Your task to perform on an android device: Open Yahoo.com Image 0: 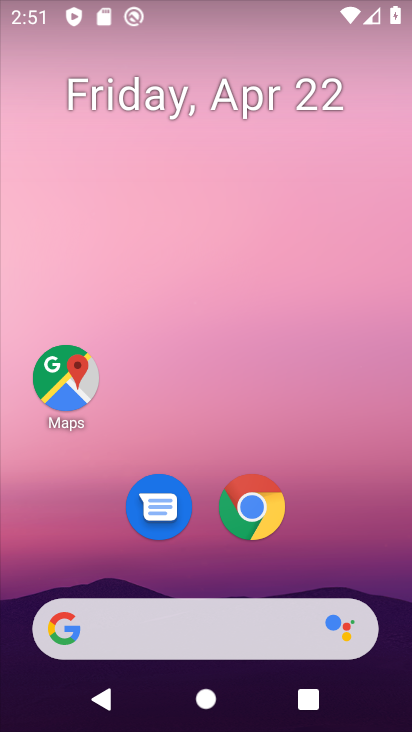
Step 0: drag from (204, 579) to (380, 10)
Your task to perform on an android device: Open Yahoo.com Image 1: 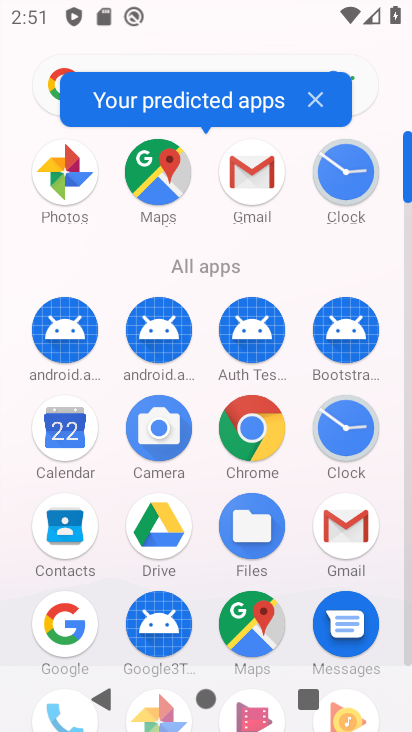
Step 1: click (258, 447)
Your task to perform on an android device: Open Yahoo.com Image 2: 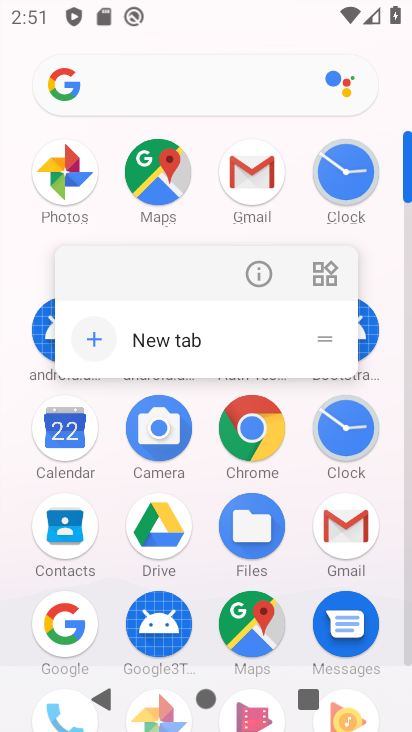
Step 2: click (264, 434)
Your task to perform on an android device: Open Yahoo.com Image 3: 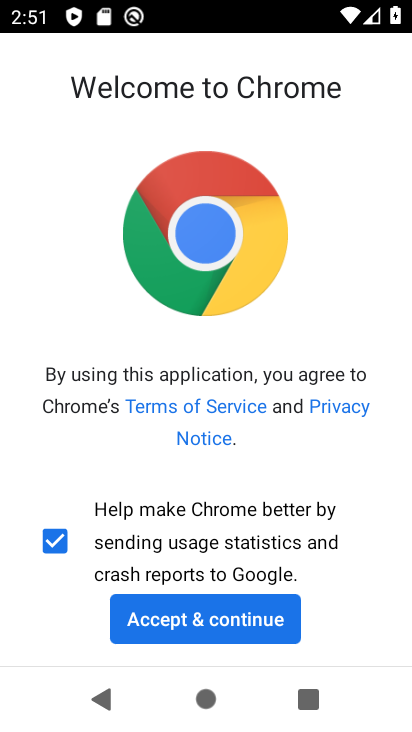
Step 3: click (175, 616)
Your task to perform on an android device: Open Yahoo.com Image 4: 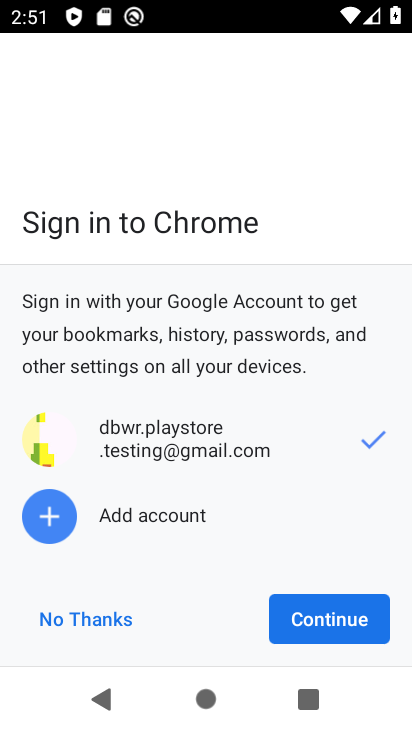
Step 4: click (316, 620)
Your task to perform on an android device: Open Yahoo.com Image 5: 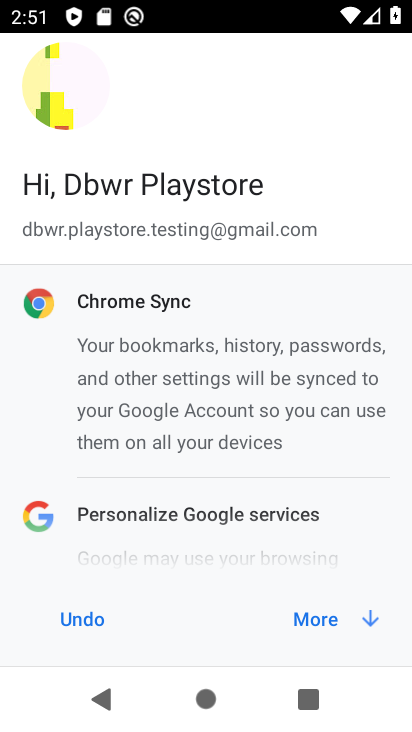
Step 5: click (340, 611)
Your task to perform on an android device: Open Yahoo.com Image 6: 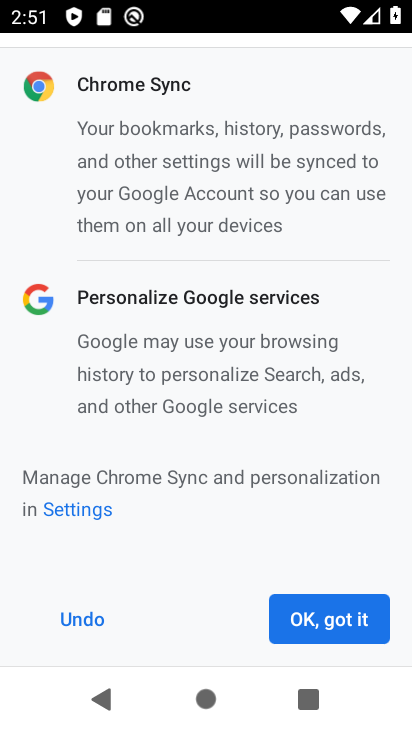
Step 6: click (332, 615)
Your task to perform on an android device: Open Yahoo.com Image 7: 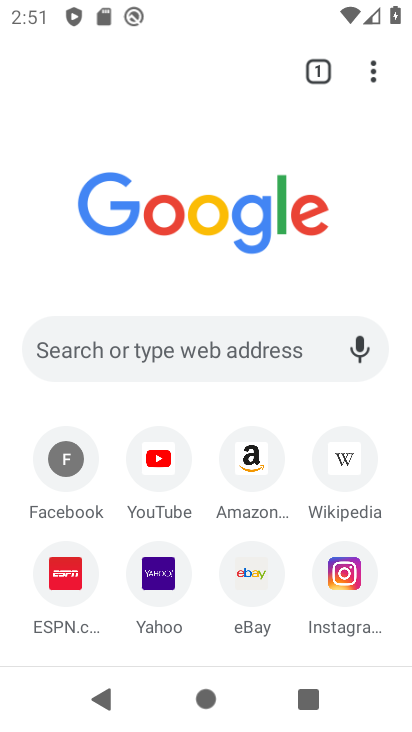
Step 7: click (169, 568)
Your task to perform on an android device: Open Yahoo.com Image 8: 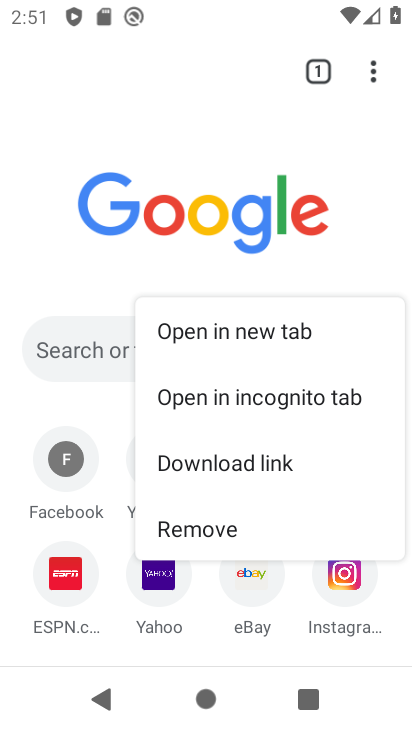
Step 8: click (166, 575)
Your task to perform on an android device: Open Yahoo.com Image 9: 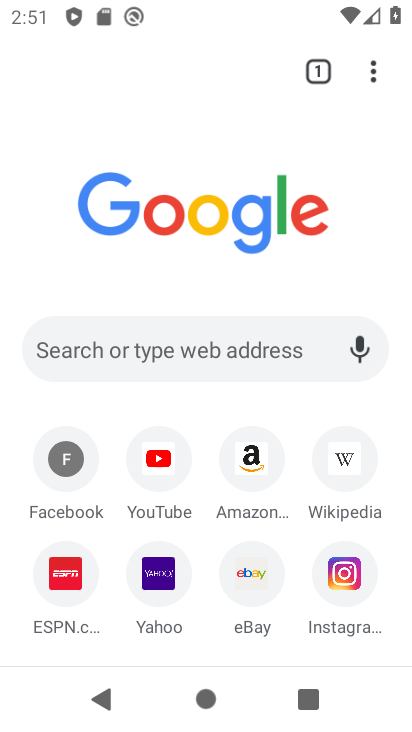
Step 9: click (166, 574)
Your task to perform on an android device: Open Yahoo.com Image 10: 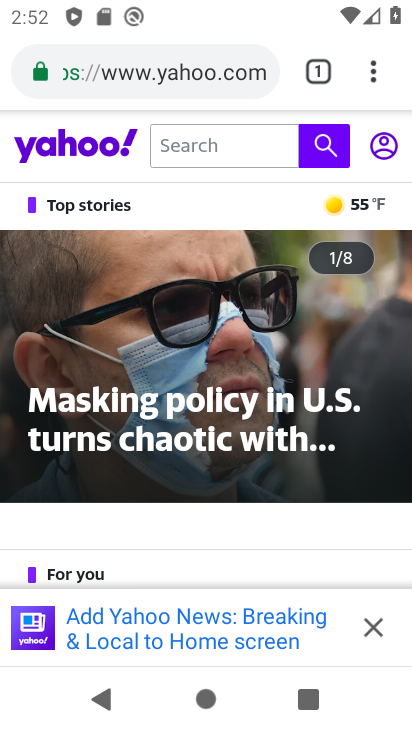
Step 10: task complete